Your task to perform on an android device: turn off smart reply in the gmail app Image 0: 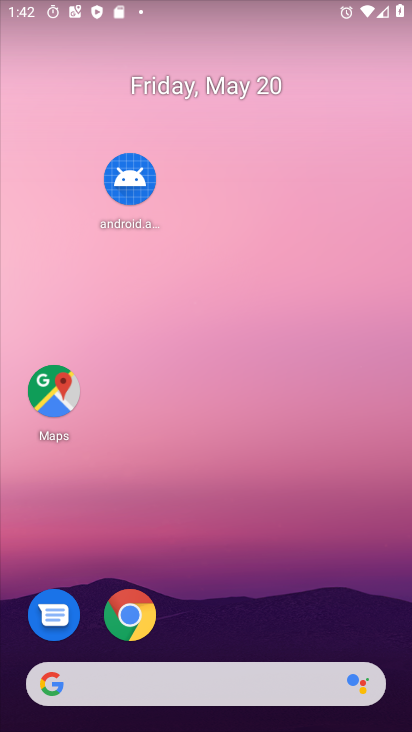
Step 0: drag from (275, 574) to (228, 191)
Your task to perform on an android device: turn off smart reply in the gmail app Image 1: 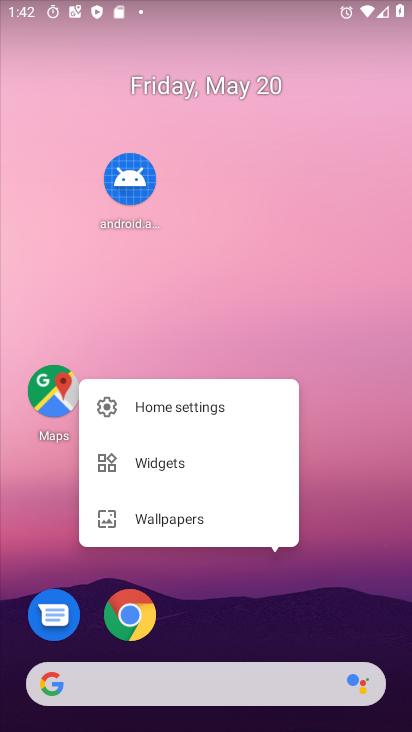
Step 1: drag from (313, 605) to (312, 154)
Your task to perform on an android device: turn off smart reply in the gmail app Image 2: 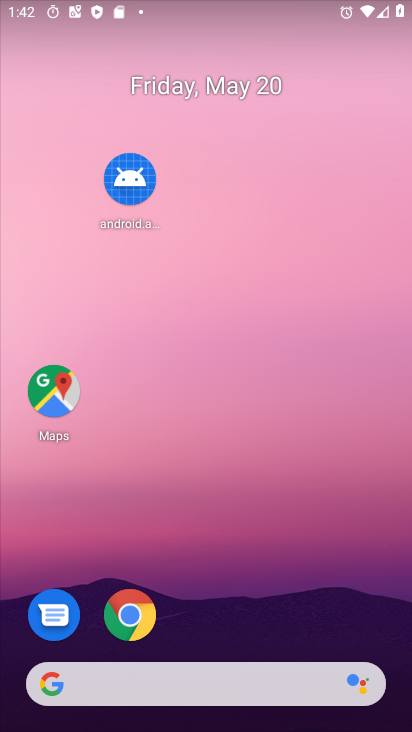
Step 2: drag from (328, 601) to (307, 125)
Your task to perform on an android device: turn off smart reply in the gmail app Image 3: 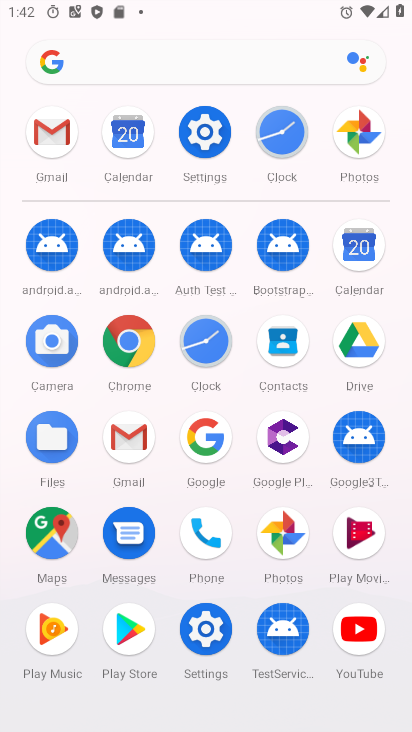
Step 3: click (113, 429)
Your task to perform on an android device: turn off smart reply in the gmail app Image 4: 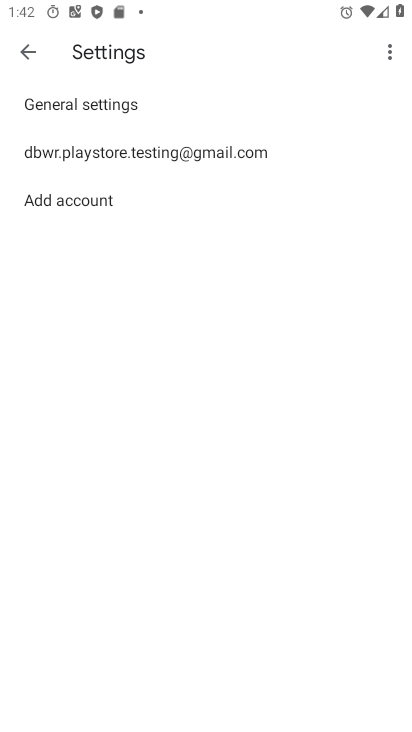
Step 4: click (47, 145)
Your task to perform on an android device: turn off smart reply in the gmail app Image 5: 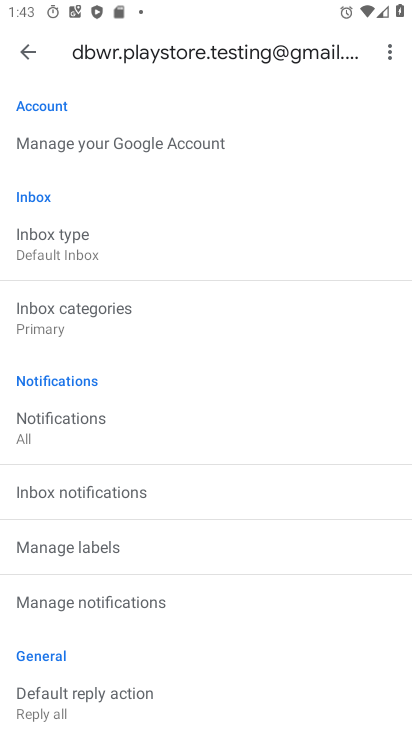
Step 5: task complete